Your task to perform on an android device: Open Youtube and go to "Your channel" Image 0: 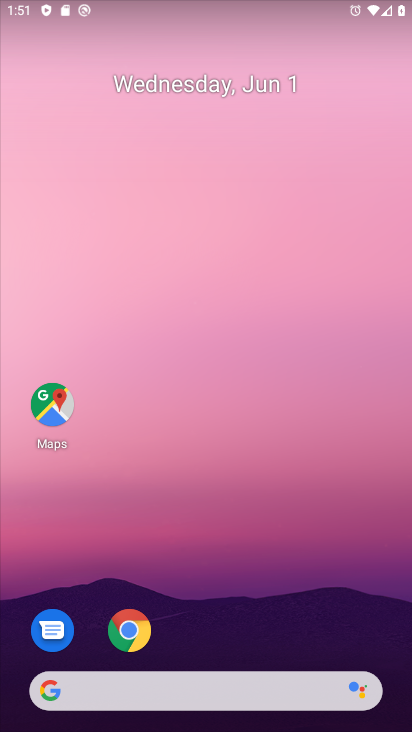
Step 0: drag from (298, 680) to (274, 24)
Your task to perform on an android device: Open Youtube and go to "Your channel" Image 1: 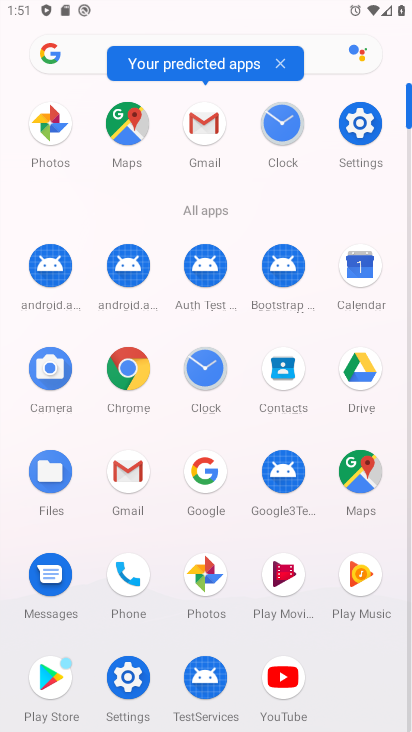
Step 1: click (288, 680)
Your task to perform on an android device: Open Youtube and go to "Your channel" Image 2: 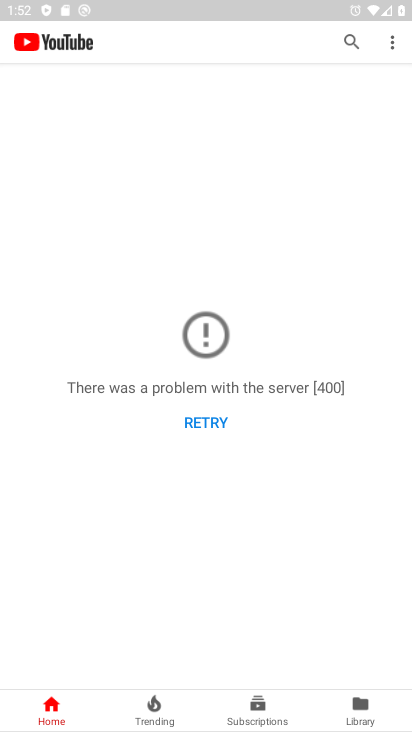
Step 2: click (366, 709)
Your task to perform on an android device: Open Youtube and go to "Your channel" Image 3: 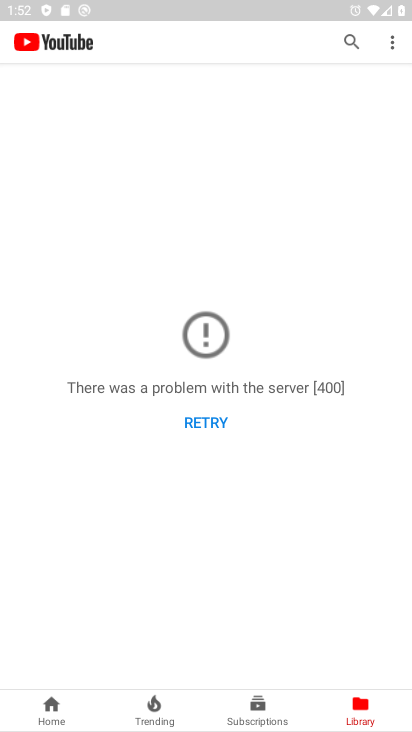
Step 3: click (214, 417)
Your task to perform on an android device: Open Youtube and go to "Your channel" Image 4: 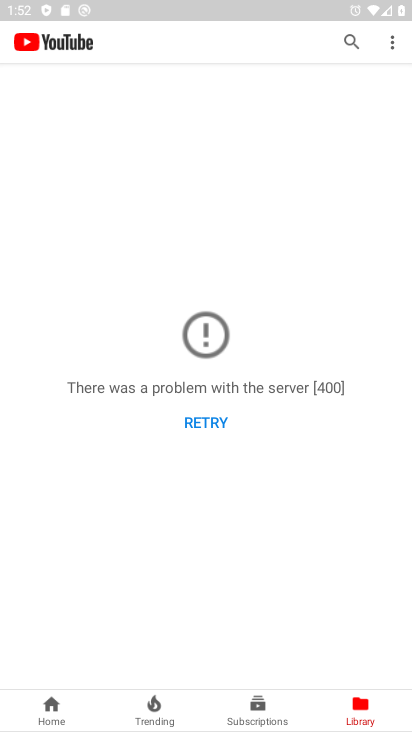
Step 4: click (366, 706)
Your task to perform on an android device: Open Youtube and go to "Your channel" Image 5: 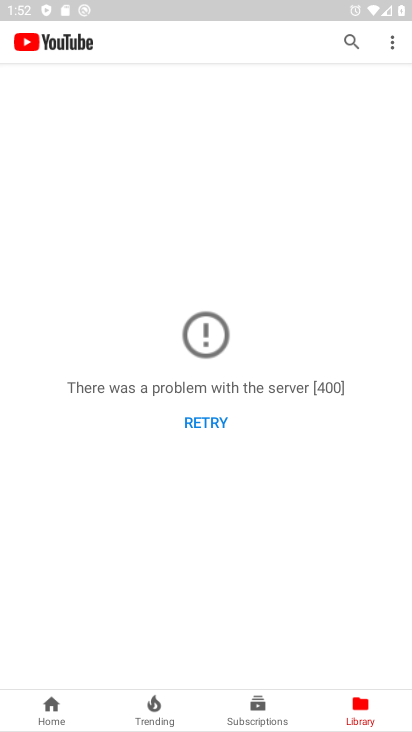
Step 5: click (366, 706)
Your task to perform on an android device: Open Youtube and go to "Your channel" Image 6: 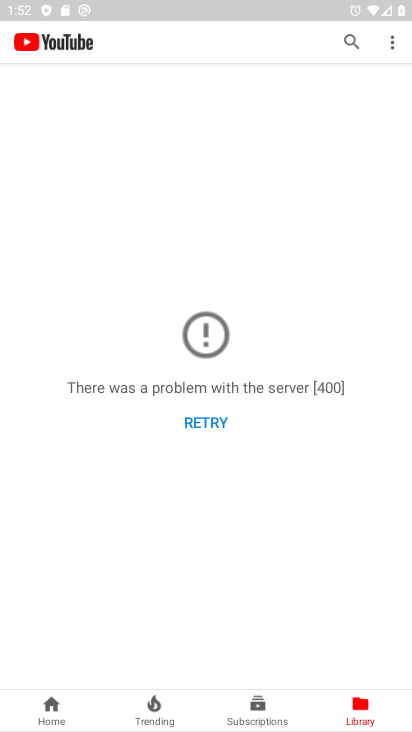
Step 6: click (57, 714)
Your task to perform on an android device: Open Youtube and go to "Your channel" Image 7: 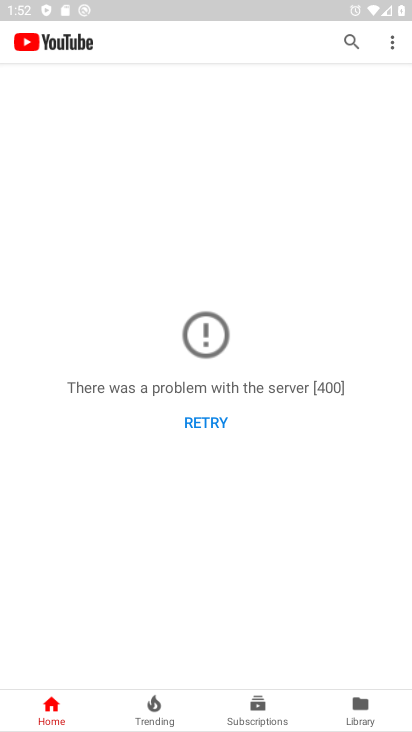
Step 7: task complete